Your task to perform on an android device: Go to sound settings Image 0: 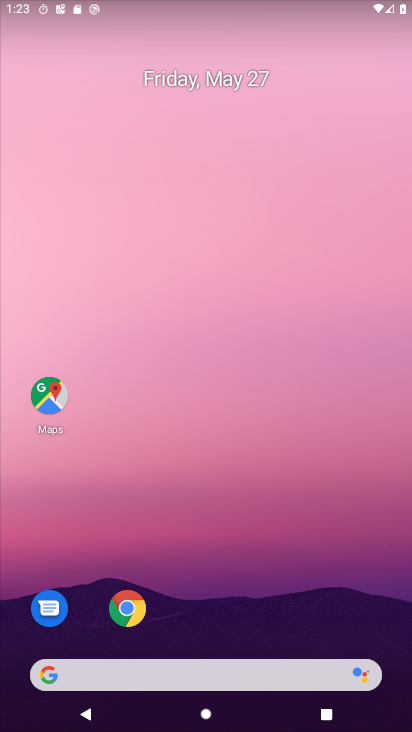
Step 0: drag from (396, 697) to (316, 162)
Your task to perform on an android device: Go to sound settings Image 1: 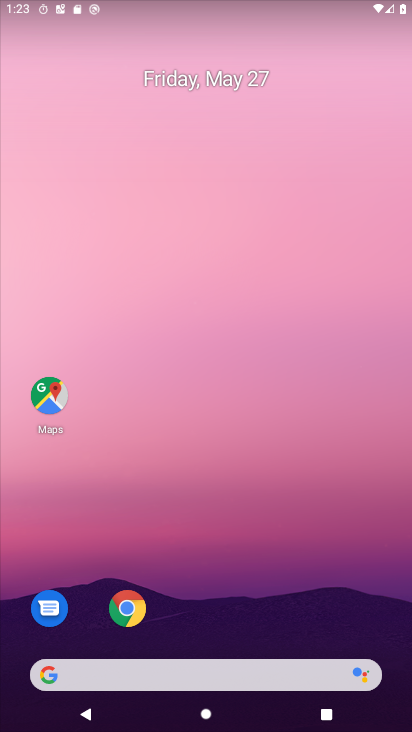
Step 1: drag from (394, 704) to (330, 124)
Your task to perform on an android device: Go to sound settings Image 2: 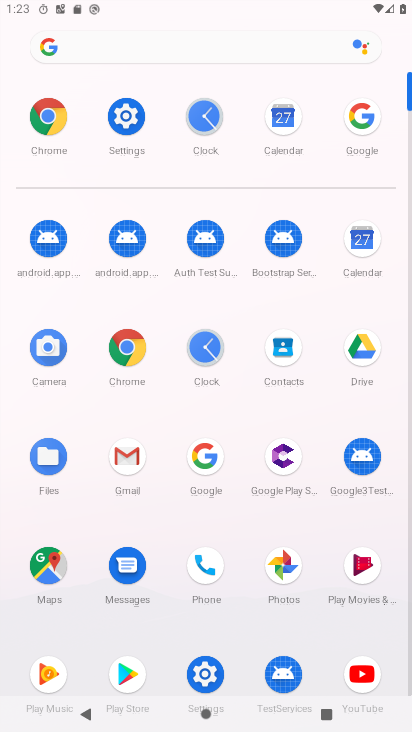
Step 2: click (191, 678)
Your task to perform on an android device: Go to sound settings Image 3: 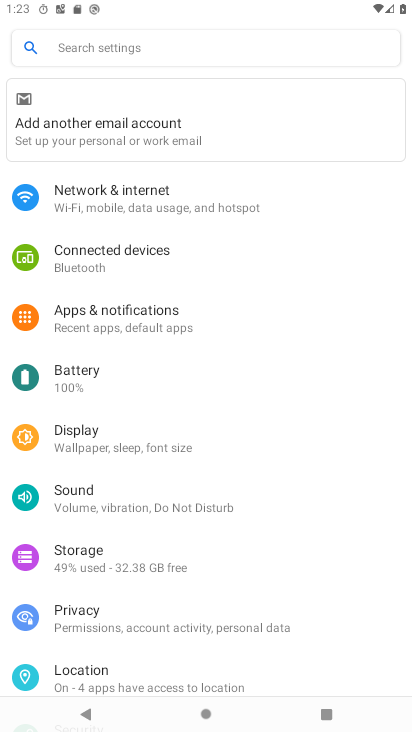
Step 3: click (80, 501)
Your task to perform on an android device: Go to sound settings Image 4: 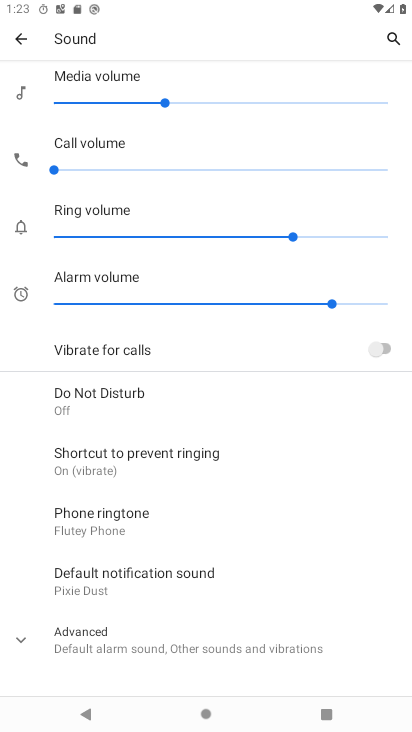
Step 4: drag from (260, 634) to (263, 385)
Your task to perform on an android device: Go to sound settings Image 5: 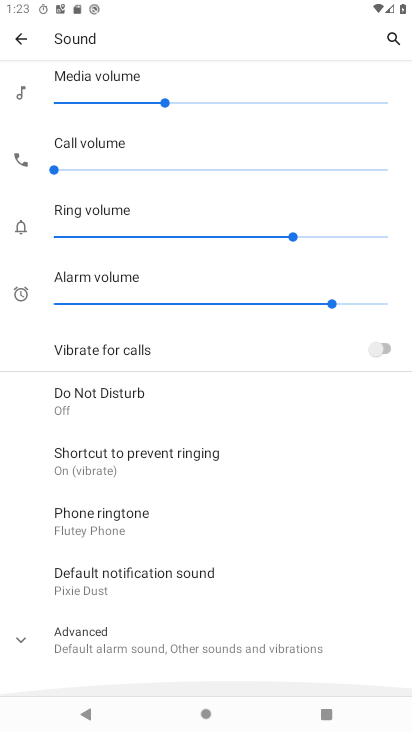
Step 5: click (18, 639)
Your task to perform on an android device: Go to sound settings Image 6: 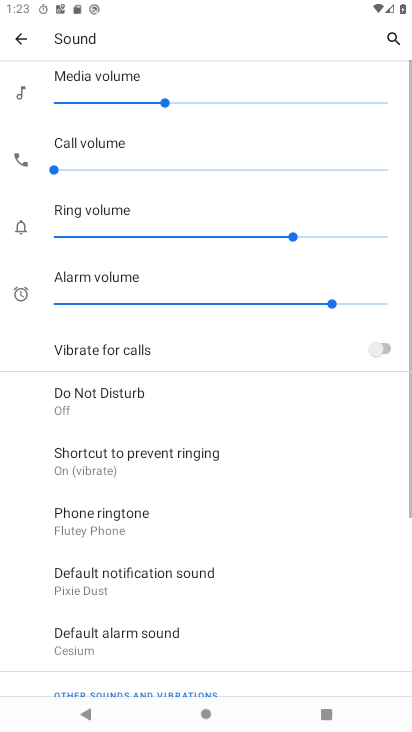
Step 6: task complete